Your task to perform on an android device: stop showing notifications on the lock screen Image 0: 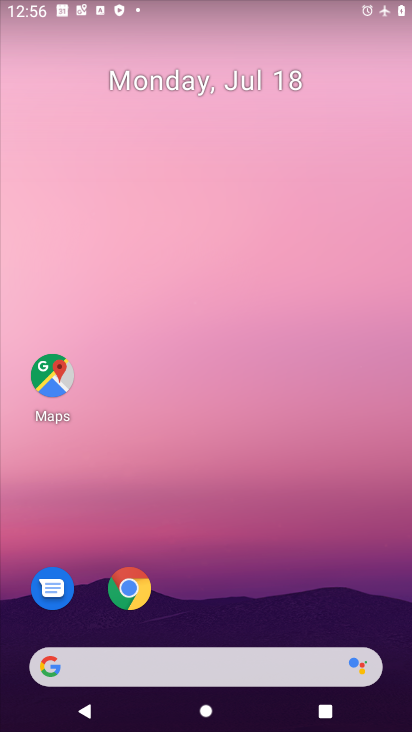
Step 0: drag from (234, 648) to (276, 85)
Your task to perform on an android device: stop showing notifications on the lock screen Image 1: 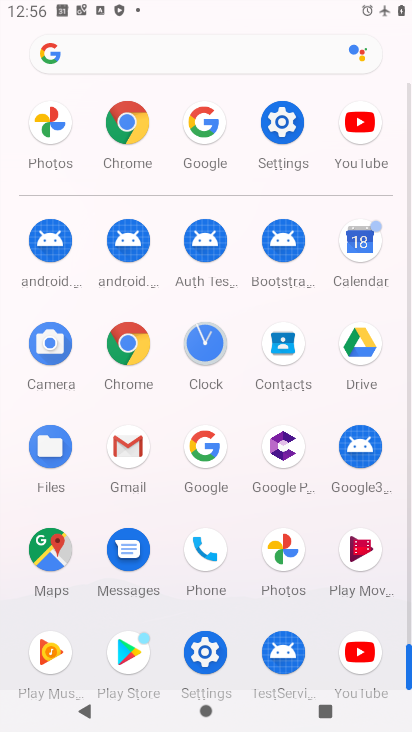
Step 1: drag from (92, 725) to (392, 703)
Your task to perform on an android device: stop showing notifications on the lock screen Image 2: 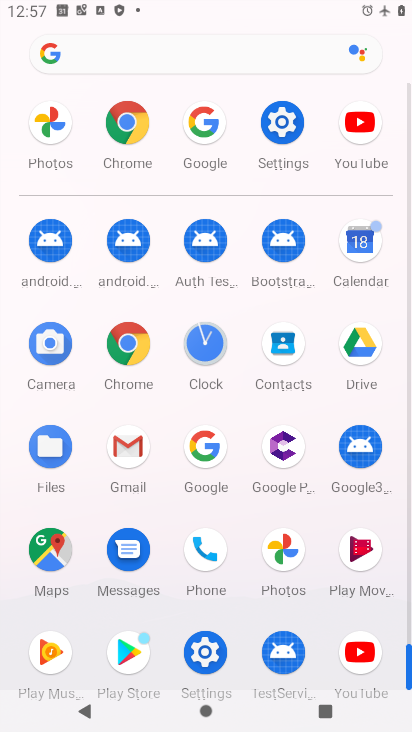
Step 2: click (277, 144)
Your task to perform on an android device: stop showing notifications on the lock screen Image 3: 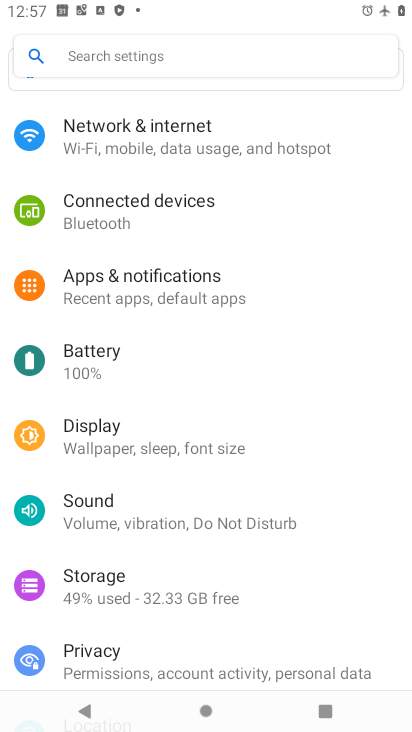
Step 3: click (164, 308)
Your task to perform on an android device: stop showing notifications on the lock screen Image 4: 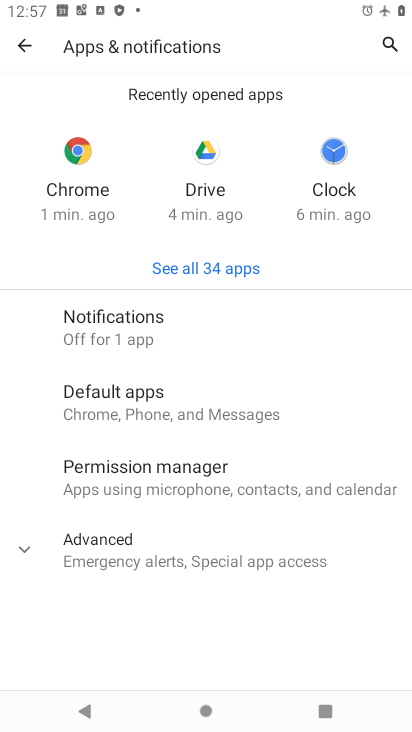
Step 4: click (175, 337)
Your task to perform on an android device: stop showing notifications on the lock screen Image 5: 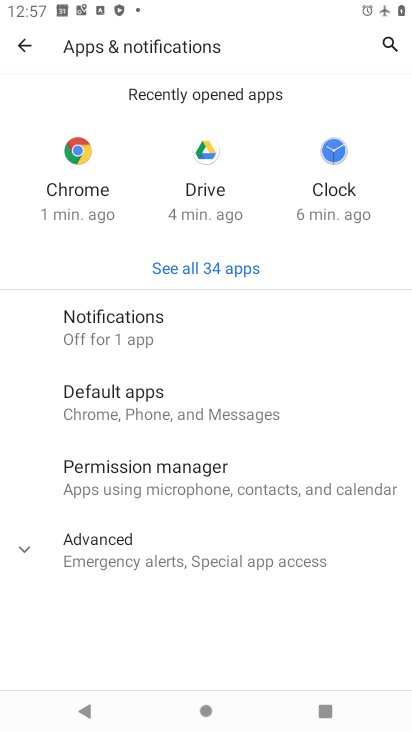
Step 5: click (177, 340)
Your task to perform on an android device: stop showing notifications on the lock screen Image 6: 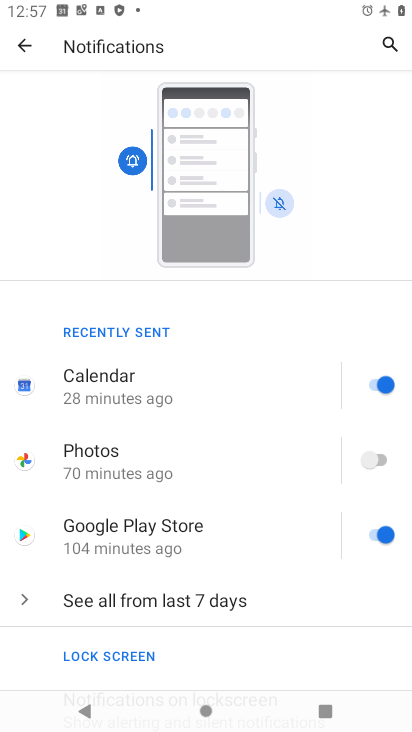
Step 6: drag from (158, 470) to (202, 148)
Your task to perform on an android device: stop showing notifications on the lock screen Image 7: 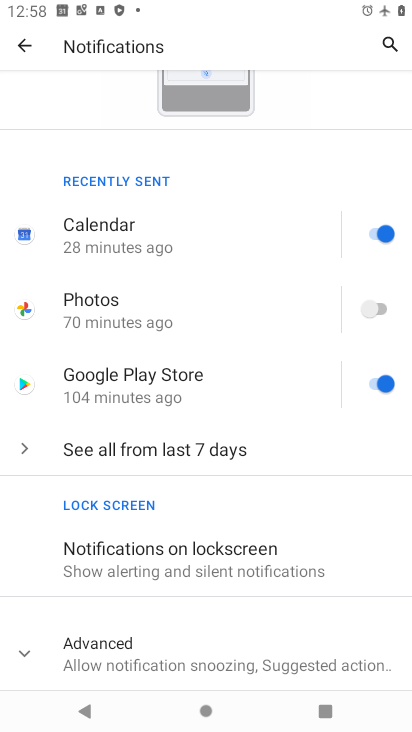
Step 7: drag from (218, 590) to (241, 239)
Your task to perform on an android device: stop showing notifications on the lock screen Image 8: 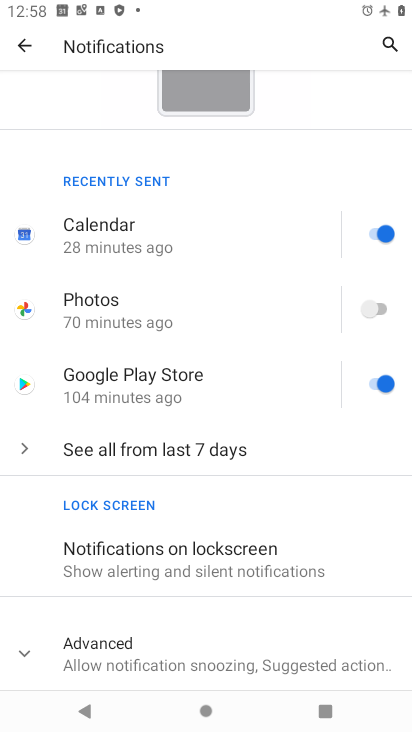
Step 8: click (178, 554)
Your task to perform on an android device: stop showing notifications on the lock screen Image 9: 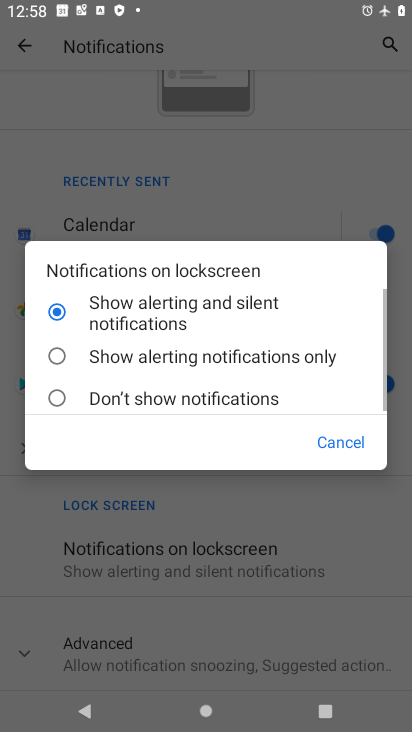
Step 9: click (69, 404)
Your task to perform on an android device: stop showing notifications on the lock screen Image 10: 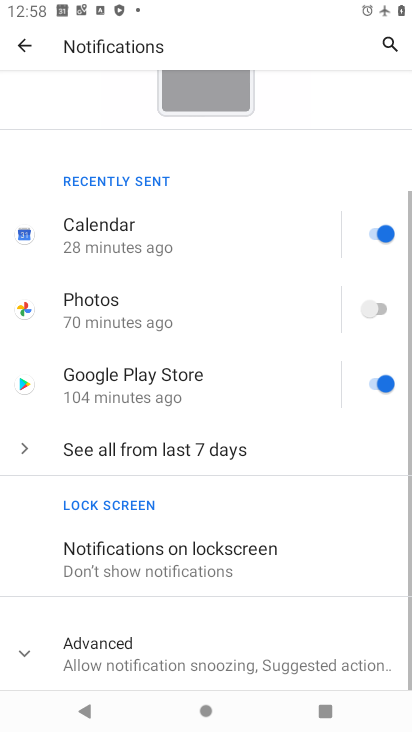
Step 10: task complete